Your task to perform on an android device: check out phone information Image 0: 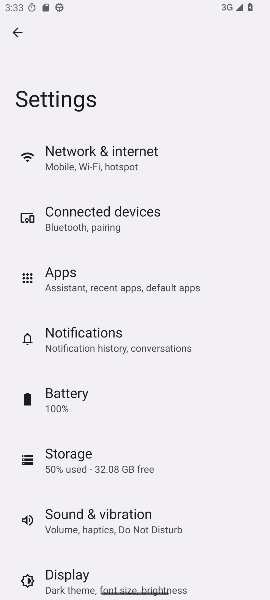
Step 0: press home button
Your task to perform on an android device: check out phone information Image 1: 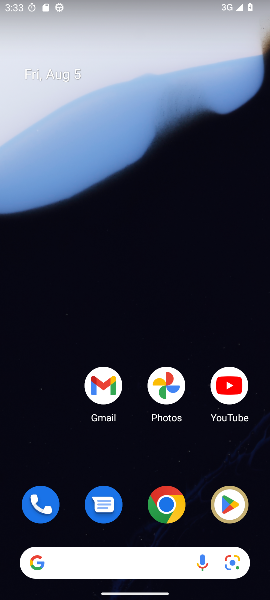
Step 1: drag from (15, 570) to (214, 22)
Your task to perform on an android device: check out phone information Image 2: 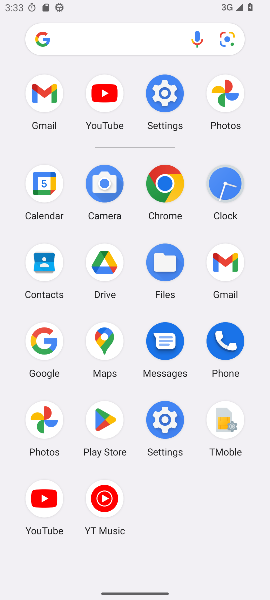
Step 2: click (215, 349)
Your task to perform on an android device: check out phone information Image 3: 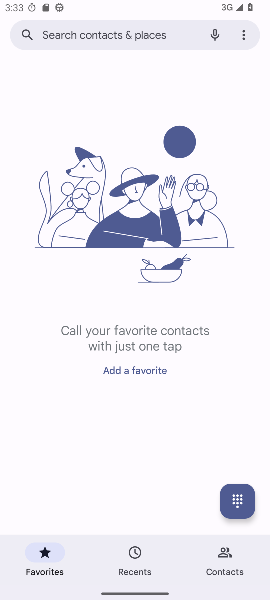
Step 3: task complete